Your task to perform on an android device: Open my contact list Image 0: 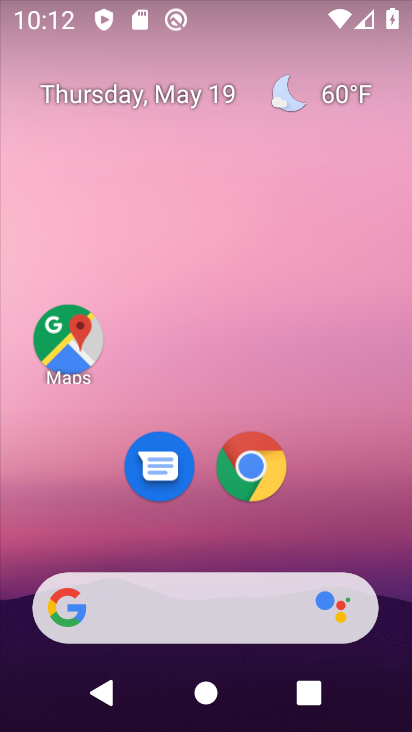
Step 0: click (324, 97)
Your task to perform on an android device: Open my contact list Image 1: 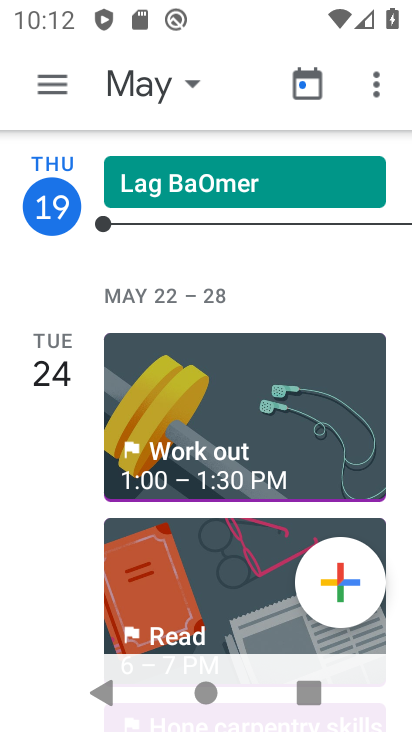
Step 1: press home button
Your task to perform on an android device: Open my contact list Image 2: 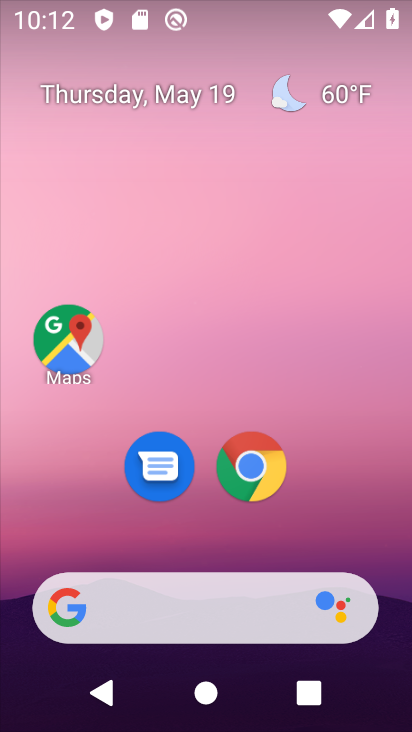
Step 2: drag from (285, 492) to (312, 165)
Your task to perform on an android device: Open my contact list Image 3: 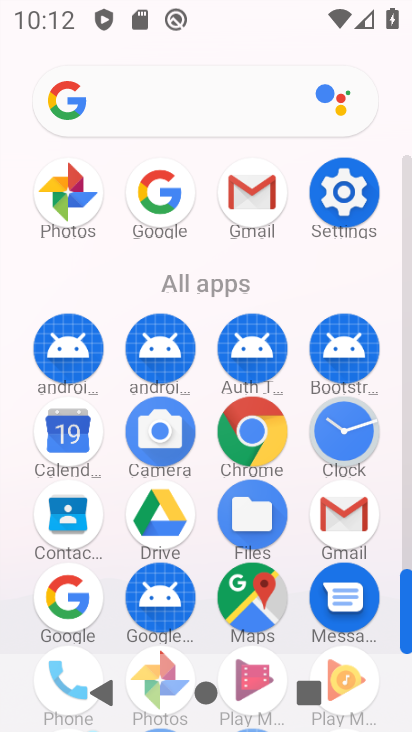
Step 3: click (73, 532)
Your task to perform on an android device: Open my contact list Image 4: 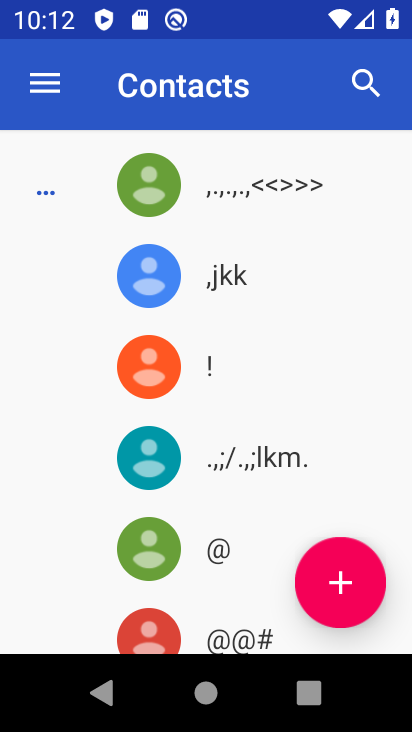
Step 4: task complete